Your task to perform on an android device: turn off sleep mode Image 0: 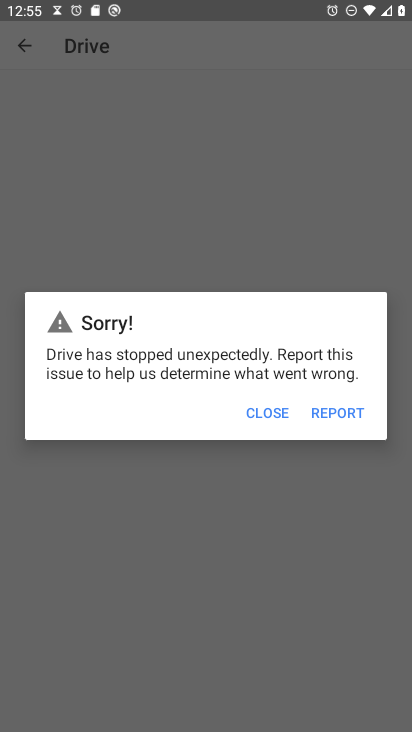
Step 0: press home button
Your task to perform on an android device: turn off sleep mode Image 1: 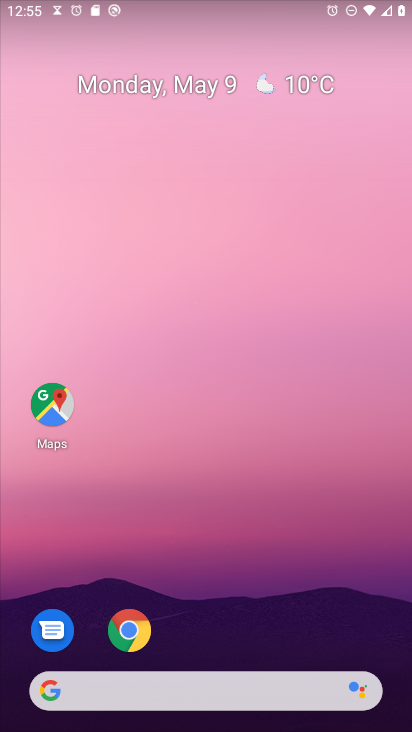
Step 1: drag from (194, 687) to (330, 73)
Your task to perform on an android device: turn off sleep mode Image 2: 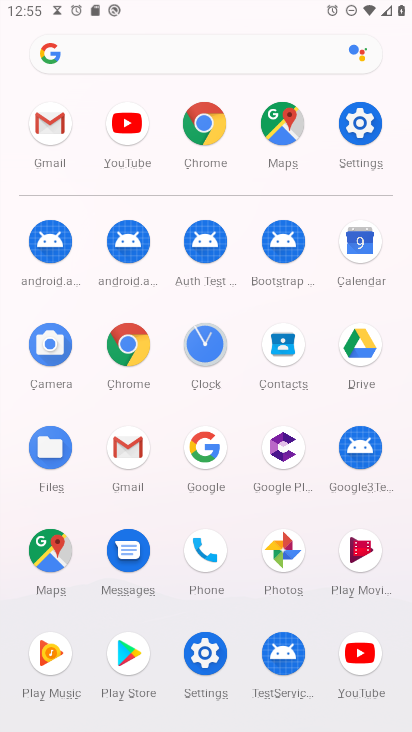
Step 2: click (354, 129)
Your task to perform on an android device: turn off sleep mode Image 3: 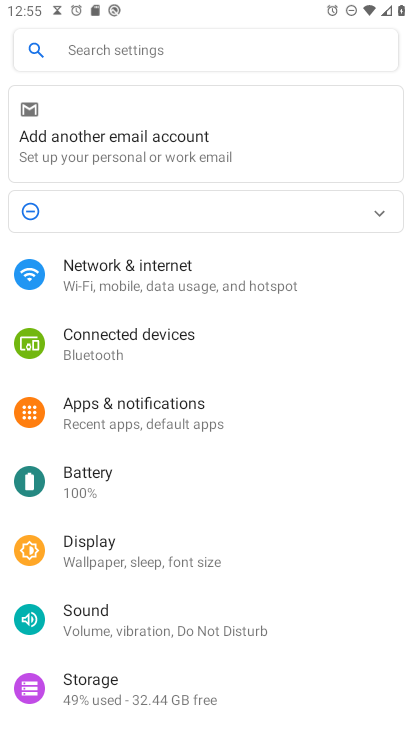
Step 3: click (169, 556)
Your task to perform on an android device: turn off sleep mode Image 4: 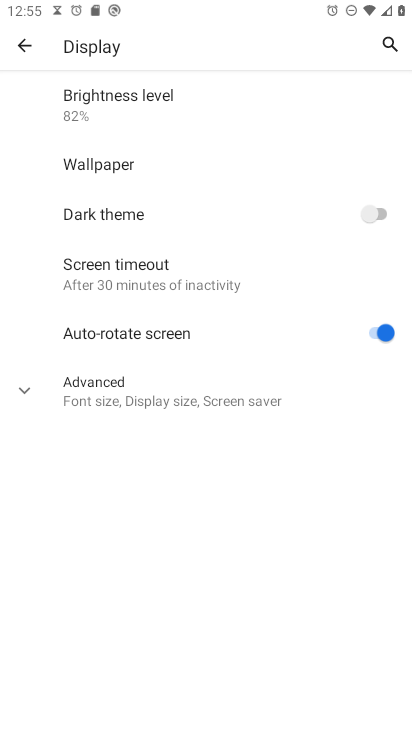
Step 4: task complete